Your task to perform on an android device: Check the news Image 0: 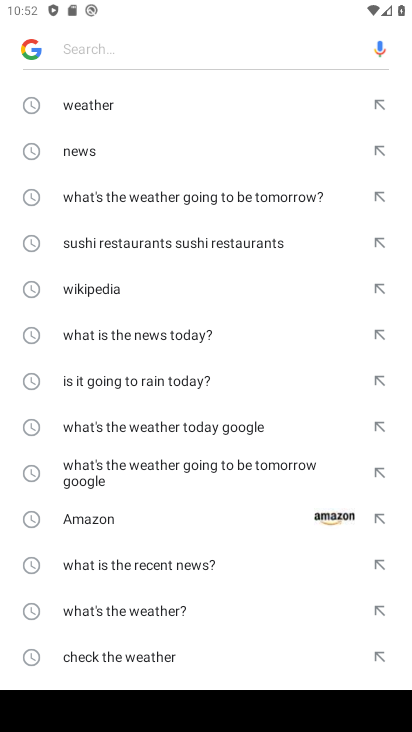
Step 0: type "news"
Your task to perform on an android device: Check the news Image 1: 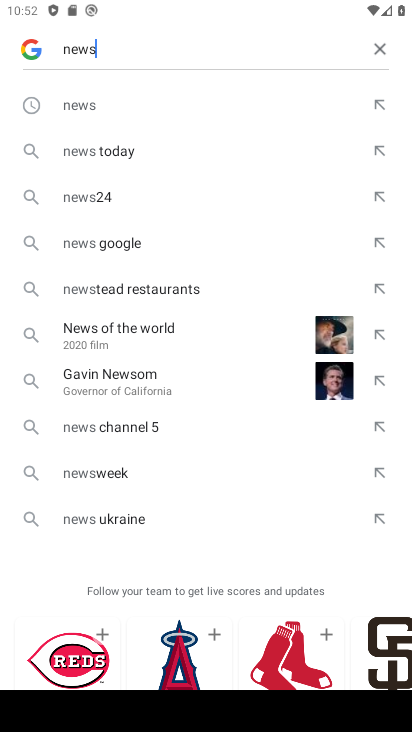
Step 1: click (112, 113)
Your task to perform on an android device: Check the news Image 2: 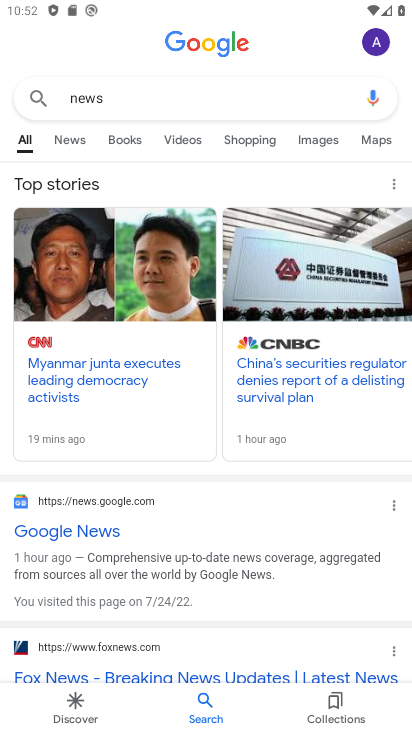
Step 2: click (59, 137)
Your task to perform on an android device: Check the news Image 3: 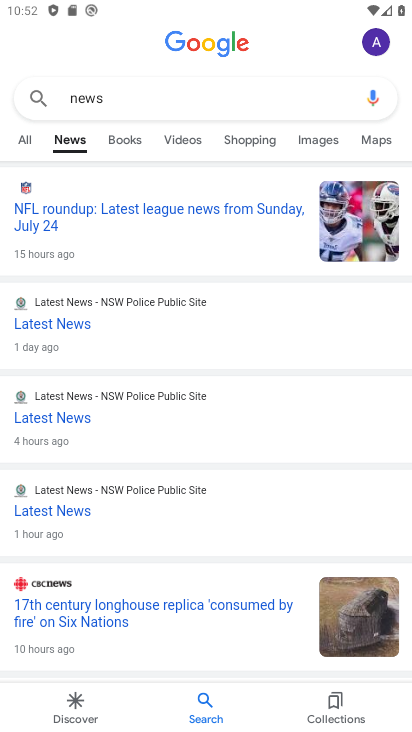
Step 3: task complete